Your task to perform on an android device: Open Maps and search for coffee Image 0: 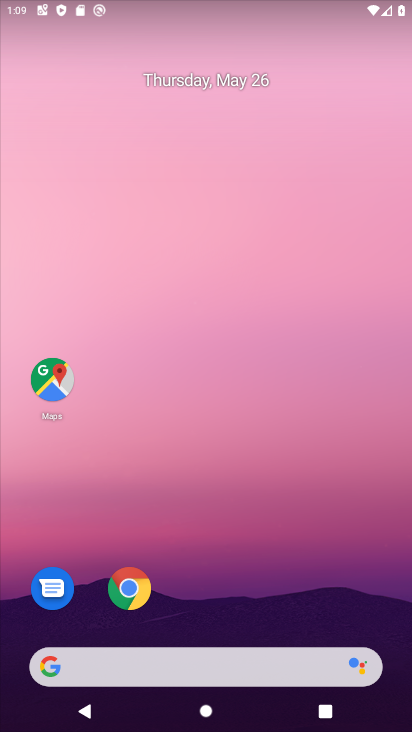
Step 0: click (52, 381)
Your task to perform on an android device: Open Maps and search for coffee Image 1: 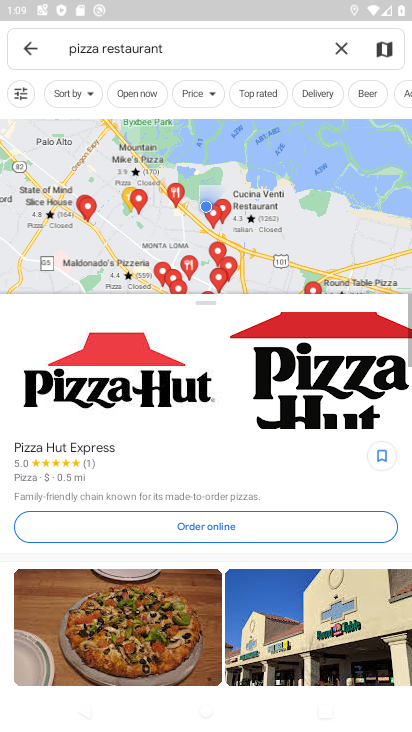
Step 1: click (341, 45)
Your task to perform on an android device: Open Maps and search for coffee Image 2: 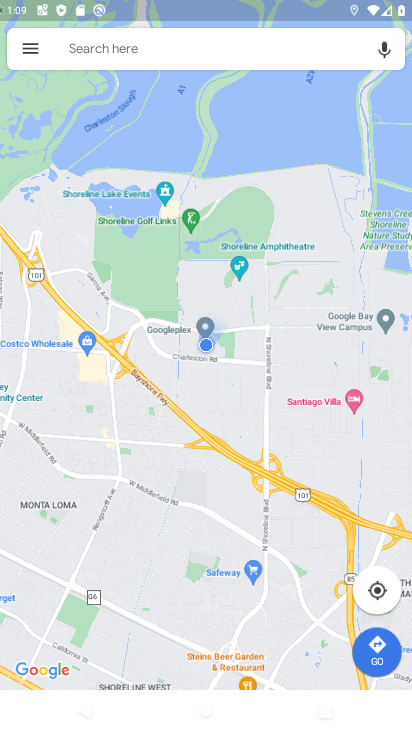
Step 2: type "coffee"
Your task to perform on an android device: Open Maps and search for coffee Image 3: 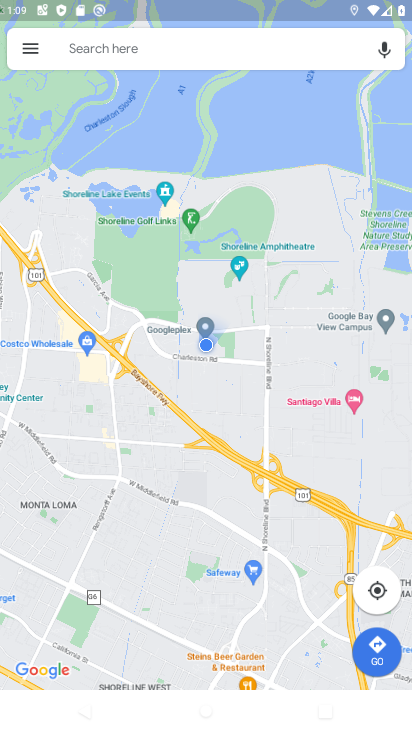
Step 3: click (71, 50)
Your task to perform on an android device: Open Maps and search for coffee Image 4: 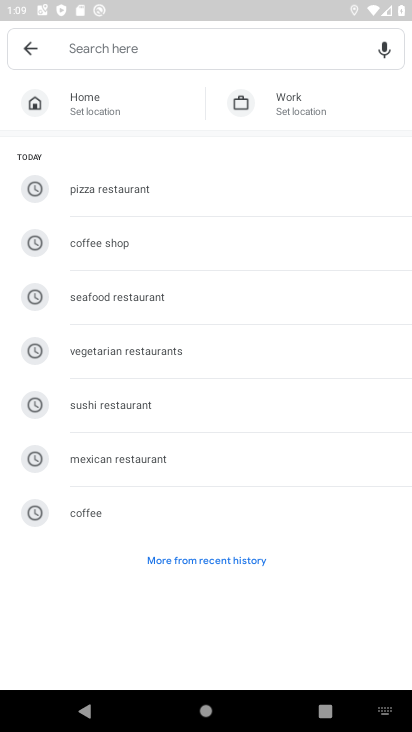
Step 4: type "coffee"
Your task to perform on an android device: Open Maps and search for coffee Image 5: 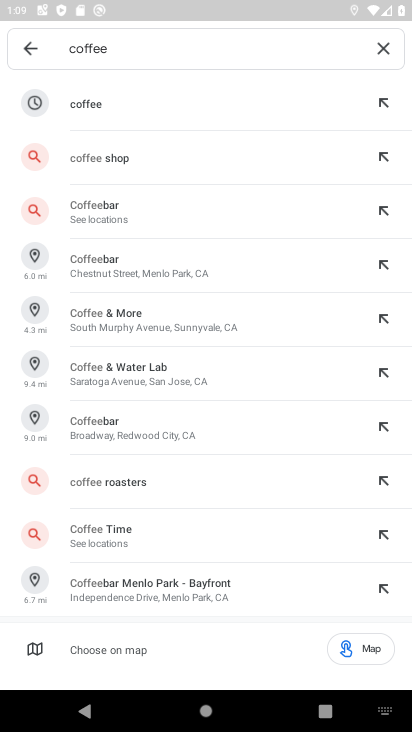
Step 5: click (95, 157)
Your task to perform on an android device: Open Maps and search for coffee Image 6: 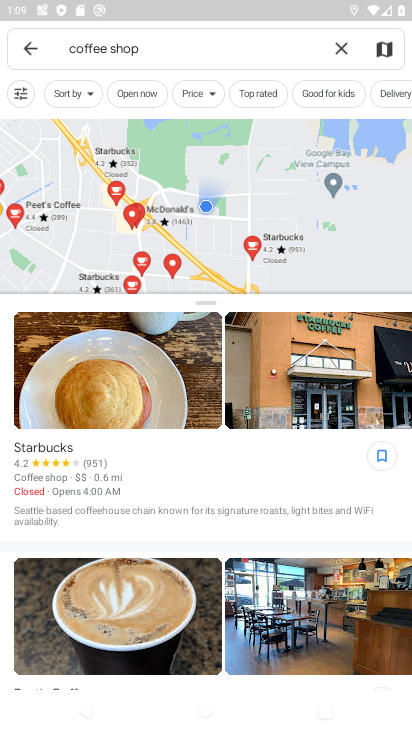
Step 6: task complete